Your task to perform on an android device: What's on my calendar tomorrow? Image 0: 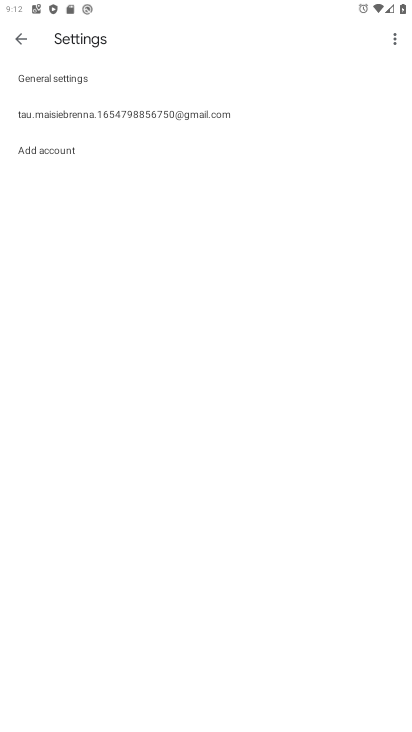
Step 0: press home button
Your task to perform on an android device: What's on my calendar tomorrow? Image 1: 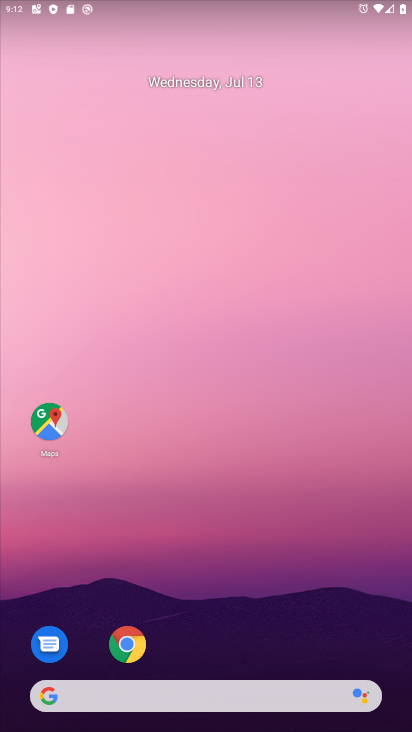
Step 1: drag from (236, 720) to (222, 168)
Your task to perform on an android device: What's on my calendar tomorrow? Image 2: 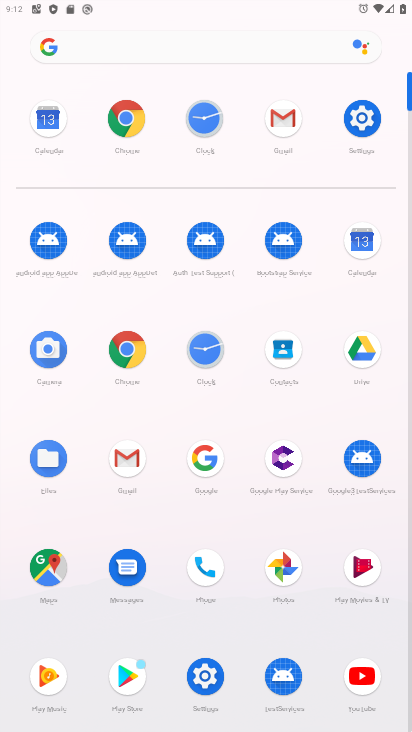
Step 2: click (362, 236)
Your task to perform on an android device: What's on my calendar tomorrow? Image 3: 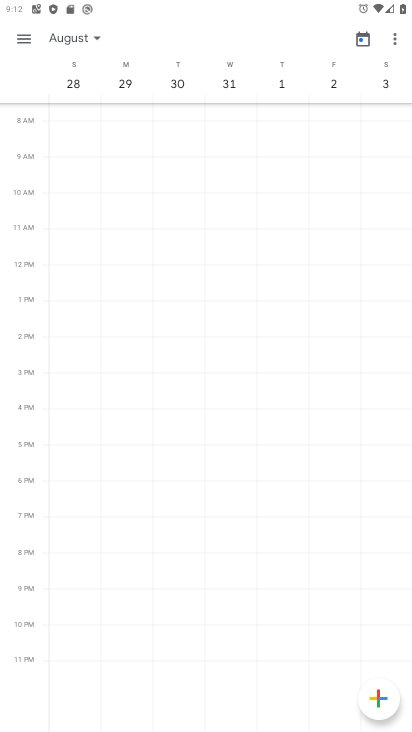
Step 3: click (100, 35)
Your task to perform on an android device: What's on my calendar tomorrow? Image 4: 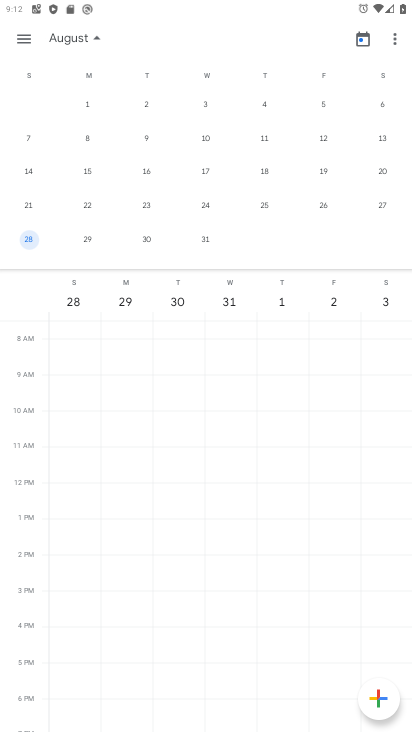
Step 4: drag from (79, 150) to (341, 168)
Your task to perform on an android device: What's on my calendar tomorrow? Image 5: 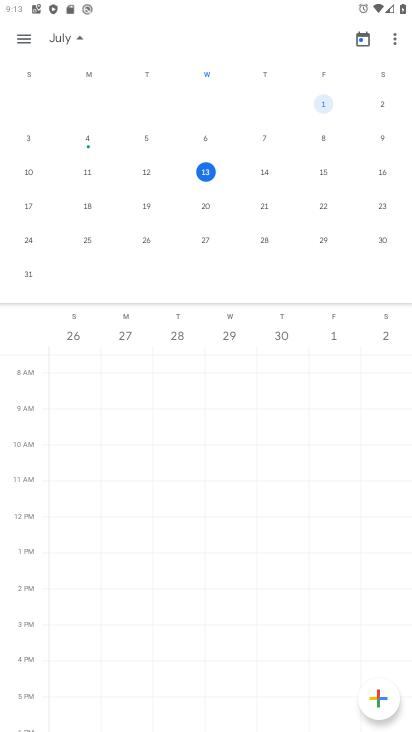
Step 5: click (271, 166)
Your task to perform on an android device: What's on my calendar tomorrow? Image 6: 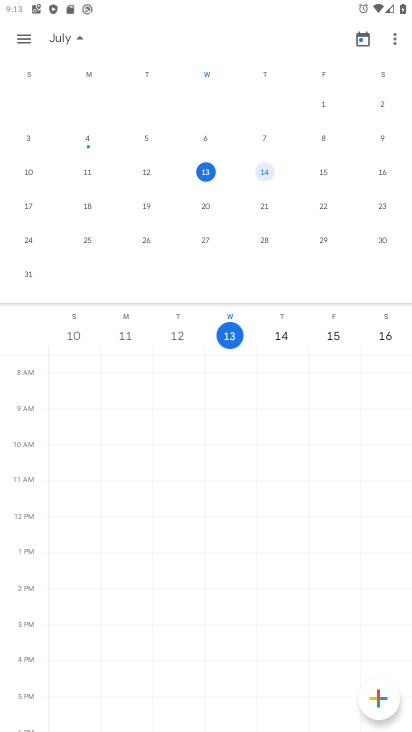
Step 6: click (281, 330)
Your task to perform on an android device: What's on my calendar tomorrow? Image 7: 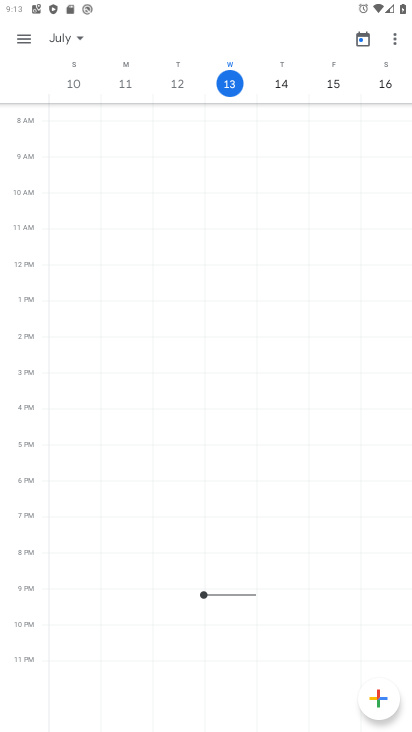
Step 7: task complete